Your task to perform on an android device: open the mobile data screen to see how much data has been used Image 0: 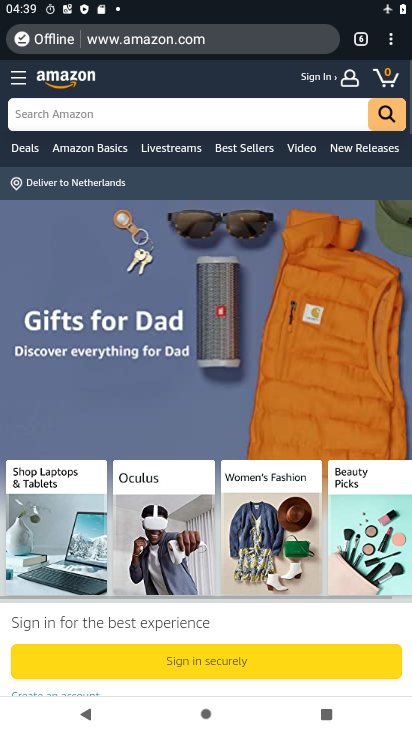
Step 0: press home button
Your task to perform on an android device: open the mobile data screen to see how much data has been used Image 1: 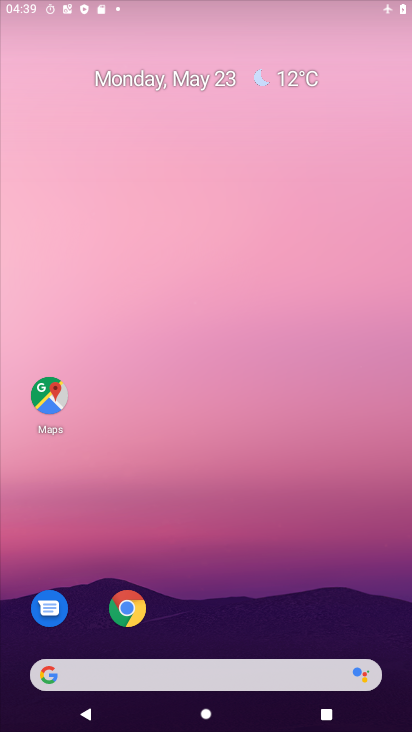
Step 1: drag from (291, 610) to (75, 7)
Your task to perform on an android device: open the mobile data screen to see how much data has been used Image 2: 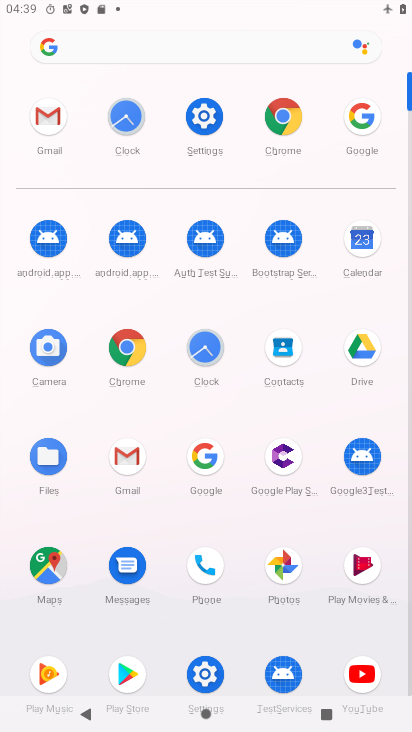
Step 2: click (205, 110)
Your task to perform on an android device: open the mobile data screen to see how much data has been used Image 3: 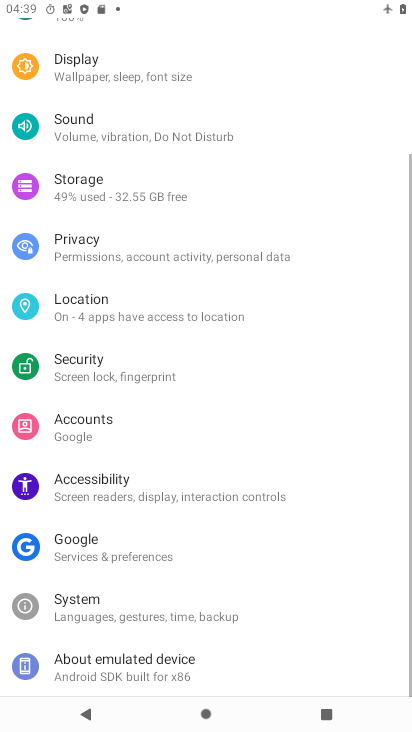
Step 3: drag from (234, 118) to (196, 696)
Your task to perform on an android device: open the mobile data screen to see how much data has been used Image 4: 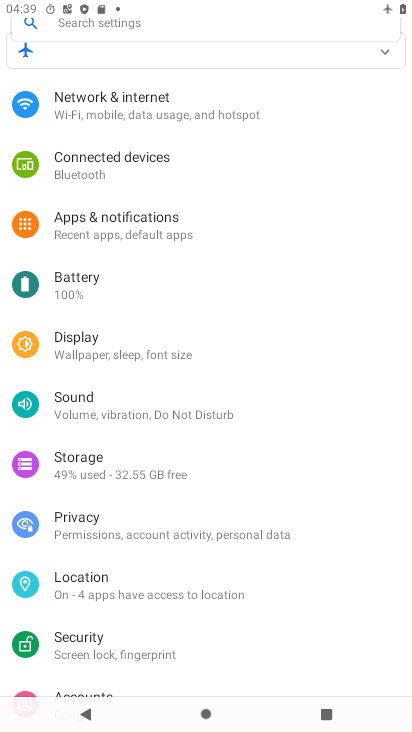
Step 4: click (139, 142)
Your task to perform on an android device: open the mobile data screen to see how much data has been used Image 5: 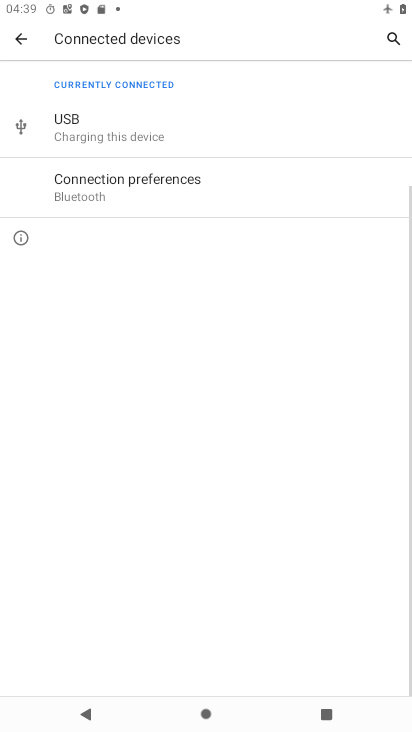
Step 5: press back button
Your task to perform on an android device: open the mobile data screen to see how much data has been used Image 6: 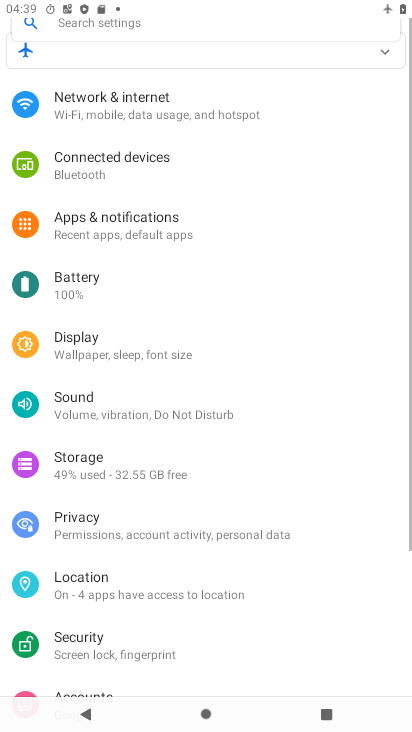
Step 6: click (147, 117)
Your task to perform on an android device: open the mobile data screen to see how much data has been used Image 7: 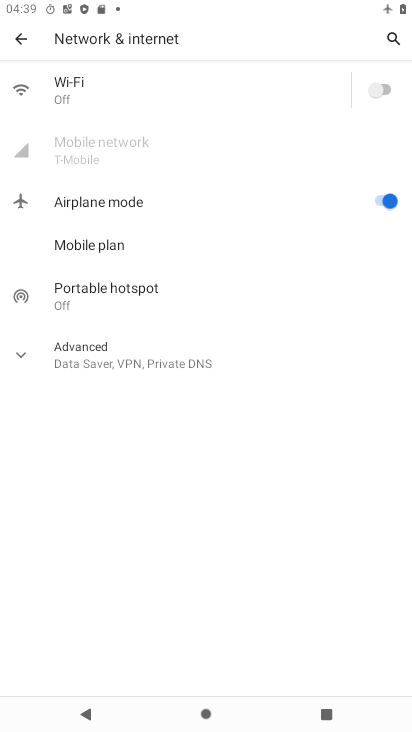
Step 7: task complete